Your task to perform on an android device: turn on translation in the chrome app Image 0: 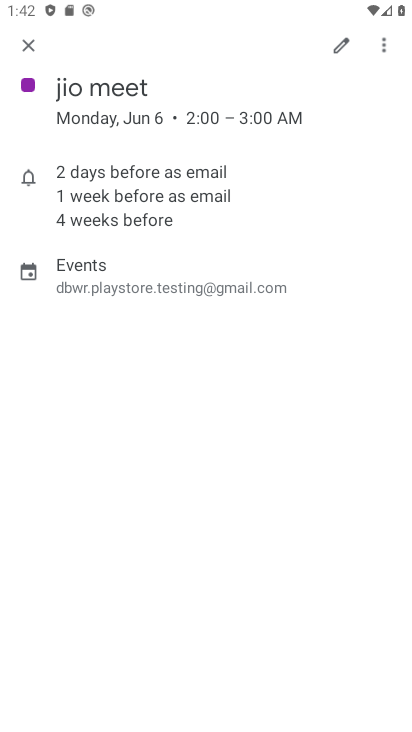
Step 0: press home button
Your task to perform on an android device: turn on translation in the chrome app Image 1: 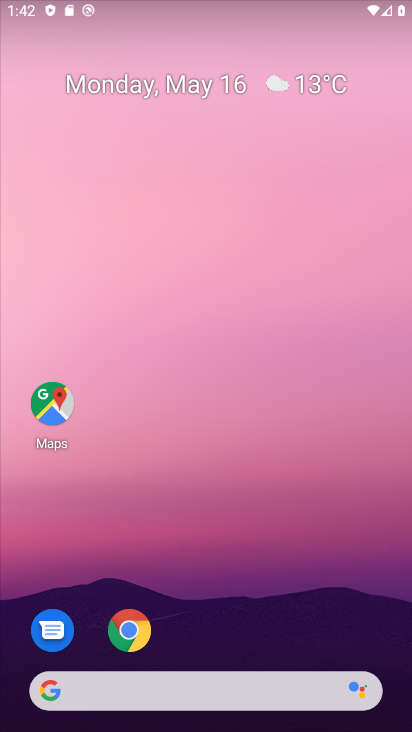
Step 1: drag from (341, 627) to (281, 210)
Your task to perform on an android device: turn on translation in the chrome app Image 2: 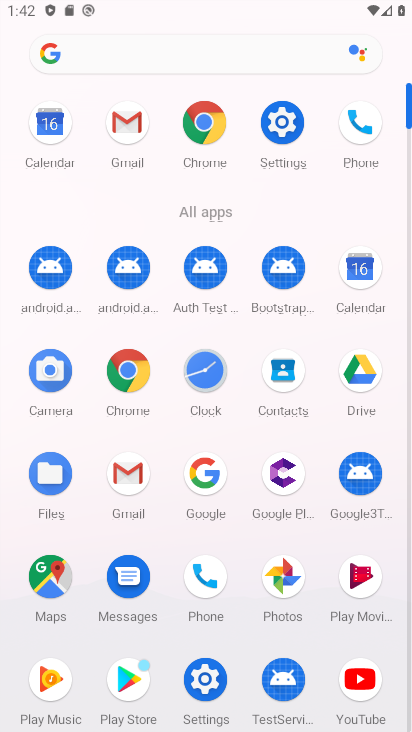
Step 2: click (124, 375)
Your task to perform on an android device: turn on translation in the chrome app Image 3: 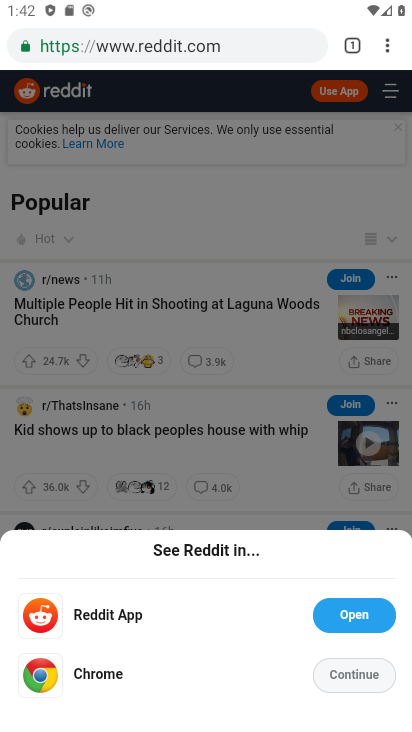
Step 3: drag from (379, 56) to (288, 606)
Your task to perform on an android device: turn on translation in the chrome app Image 4: 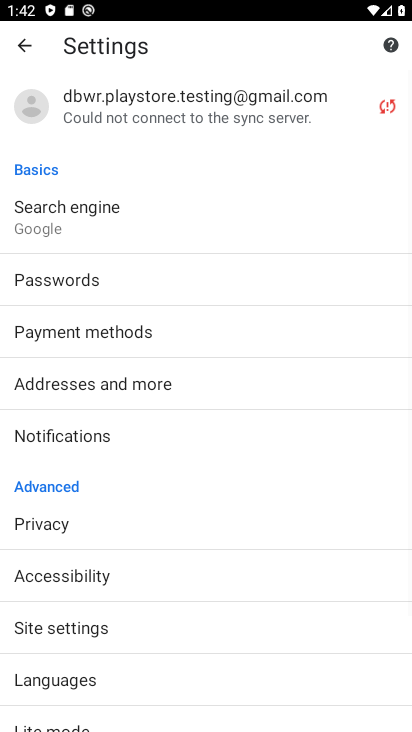
Step 4: drag from (283, 624) to (298, 246)
Your task to perform on an android device: turn on translation in the chrome app Image 5: 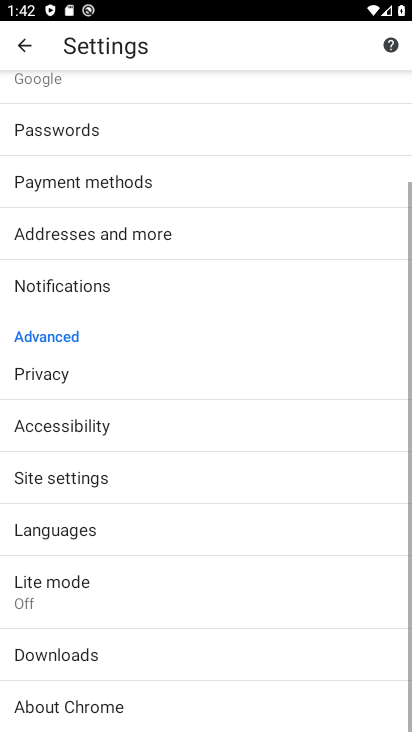
Step 5: drag from (291, 647) to (324, 298)
Your task to perform on an android device: turn on translation in the chrome app Image 6: 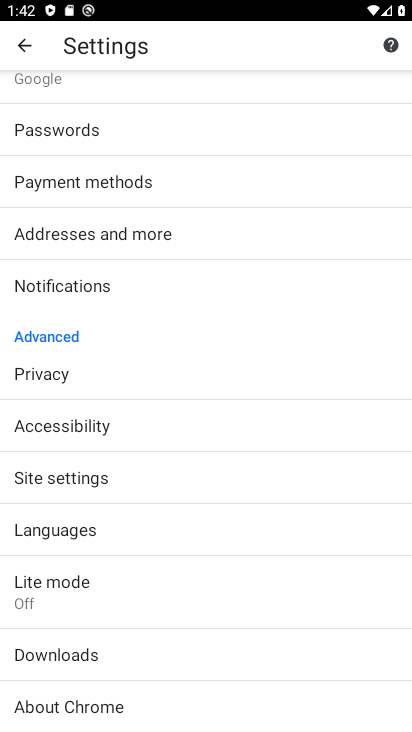
Step 6: click (184, 531)
Your task to perform on an android device: turn on translation in the chrome app Image 7: 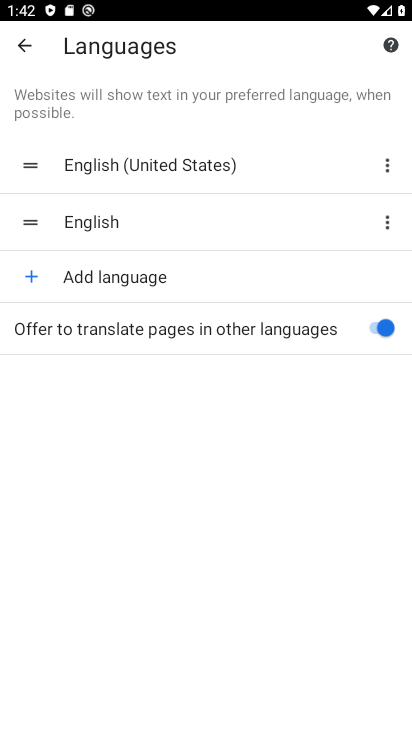
Step 7: task complete